Your task to perform on an android device: Do I have any events today? Image 0: 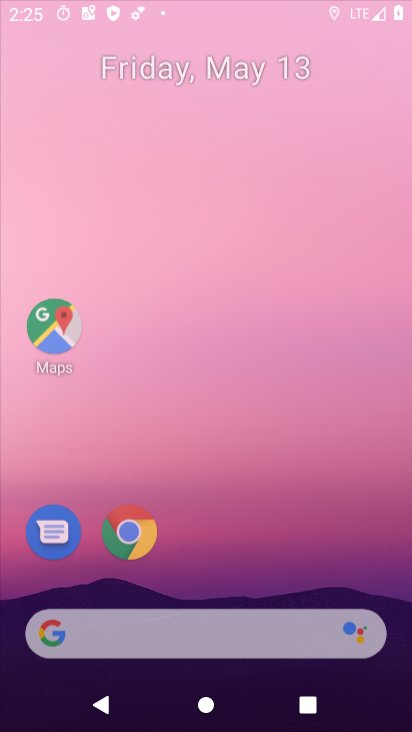
Step 0: drag from (253, 700) to (287, 62)
Your task to perform on an android device: Do I have any events today? Image 1: 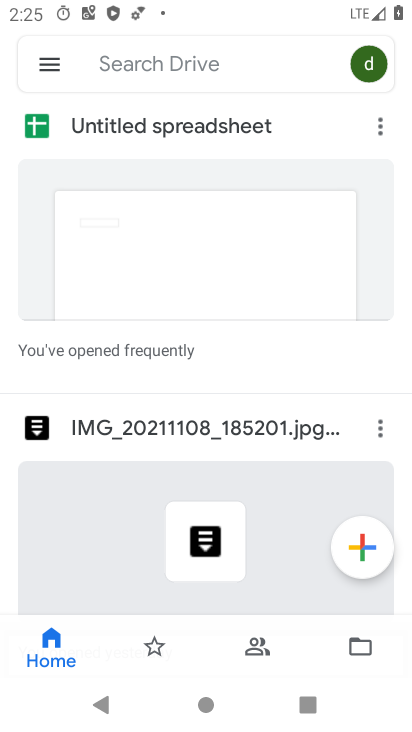
Step 1: press home button
Your task to perform on an android device: Do I have any events today? Image 2: 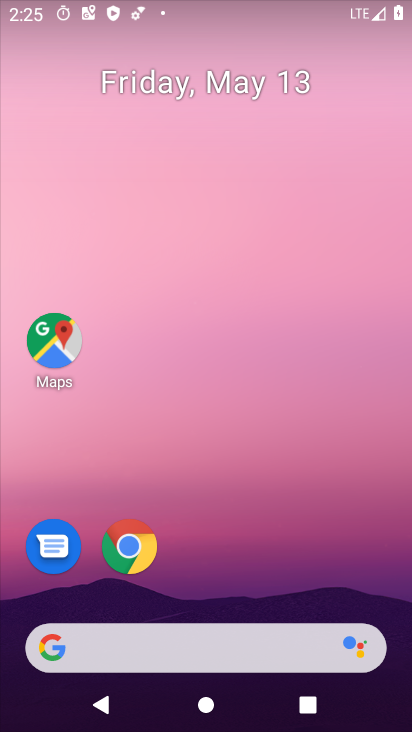
Step 2: drag from (229, 595) to (291, 222)
Your task to perform on an android device: Do I have any events today? Image 3: 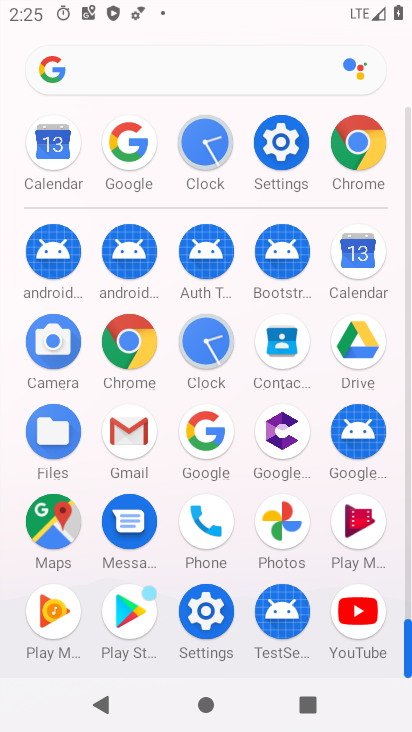
Step 3: click (363, 258)
Your task to perform on an android device: Do I have any events today? Image 4: 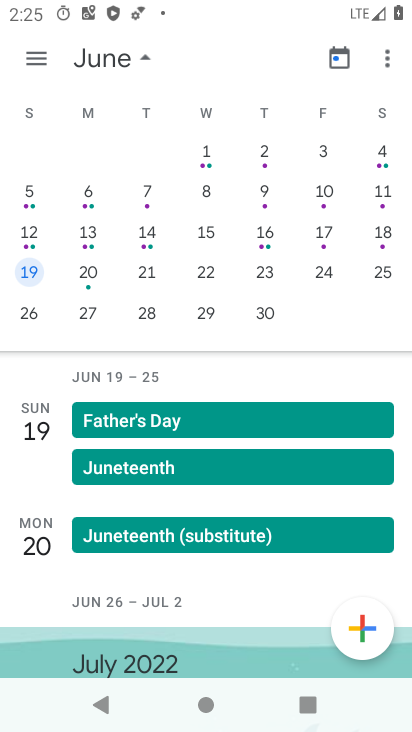
Step 4: task complete